Your task to perform on an android device: Turn off the flashlight Image 0: 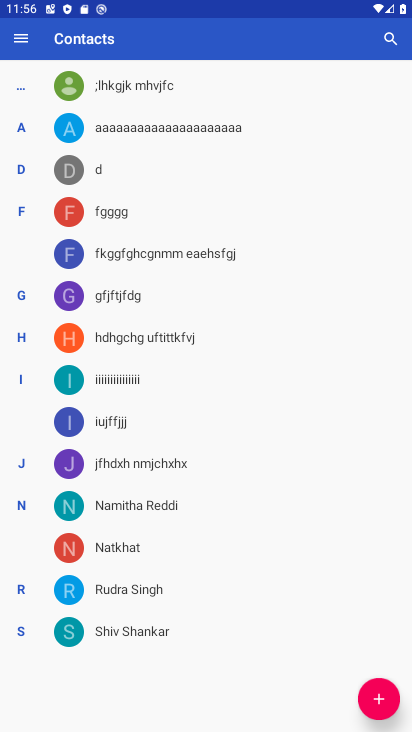
Step 0: press home button
Your task to perform on an android device: Turn off the flashlight Image 1: 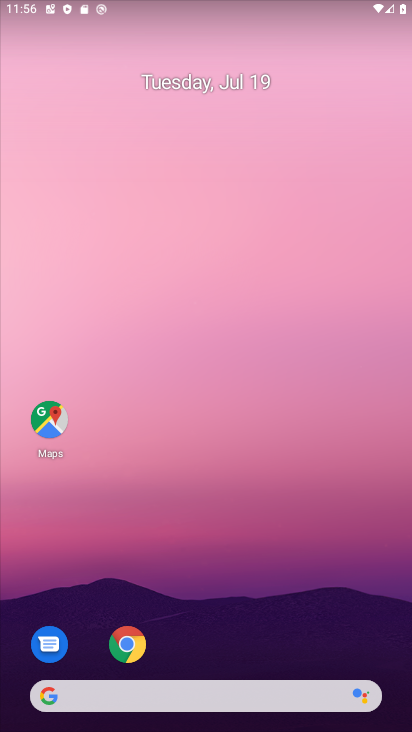
Step 1: task complete